Your task to perform on an android device: When is my next meeting? Image 0: 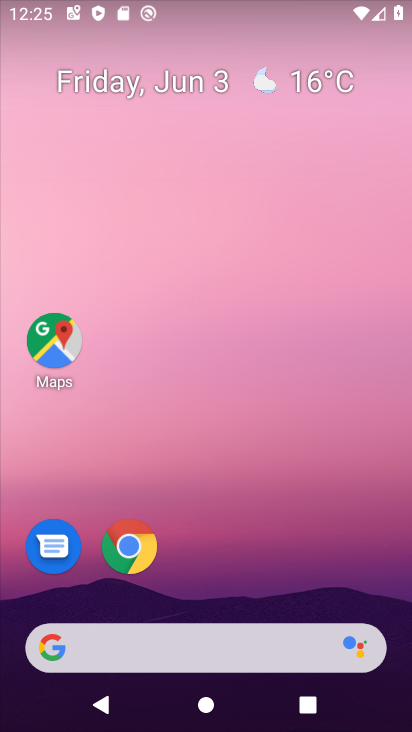
Step 0: drag from (290, 539) to (211, 92)
Your task to perform on an android device: When is my next meeting? Image 1: 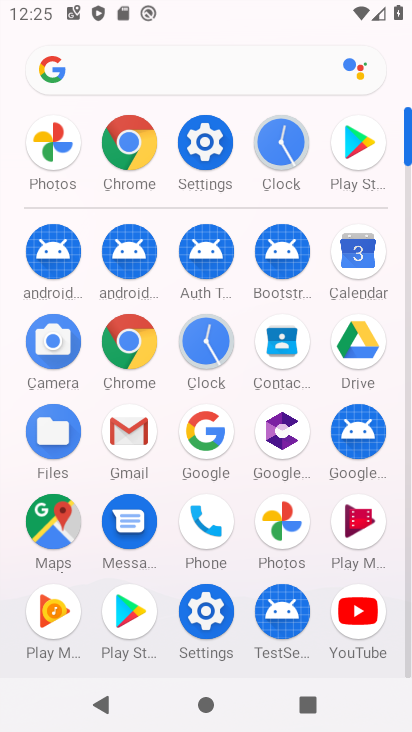
Step 1: click (361, 269)
Your task to perform on an android device: When is my next meeting? Image 2: 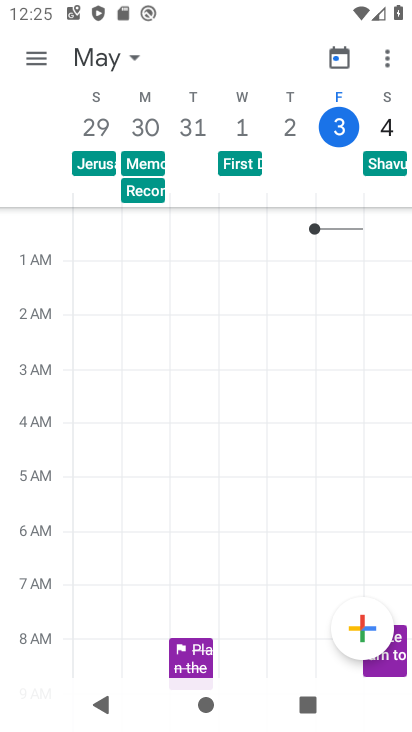
Step 2: click (135, 55)
Your task to perform on an android device: When is my next meeting? Image 3: 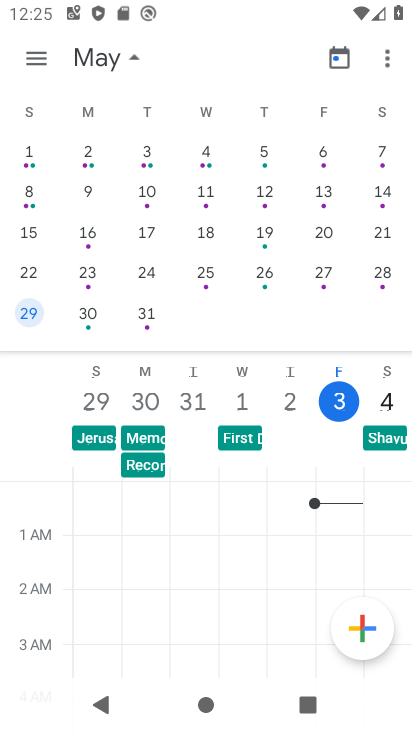
Step 3: drag from (360, 225) to (10, 225)
Your task to perform on an android device: When is my next meeting? Image 4: 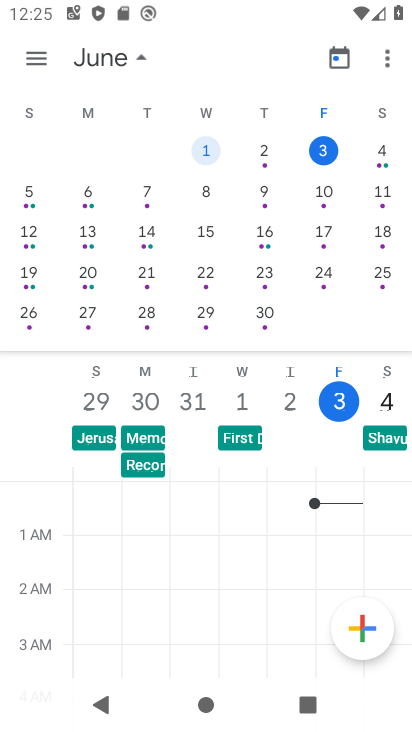
Step 4: click (323, 156)
Your task to perform on an android device: When is my next meeting? Image 5: 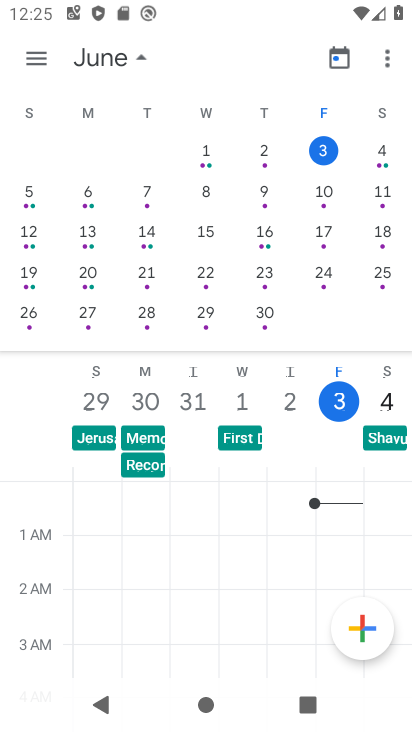
Step 5: task complete